Your task to perform on an android device: turn vacation reply on in the gmail app Image 0: 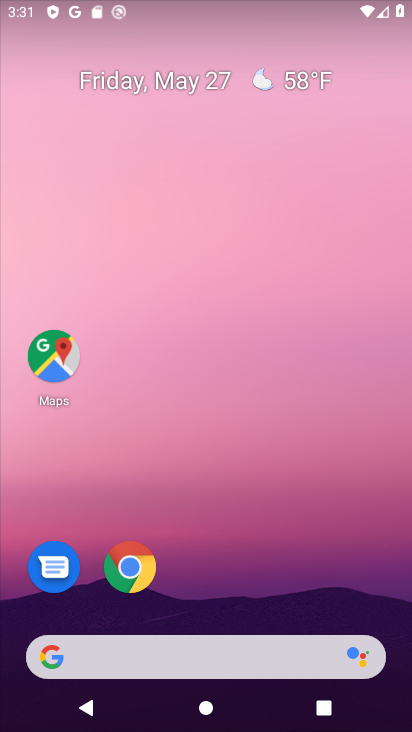
Step 0: press home button
Your task to perform on an android device: turn vacation reply on in the gmail app Image 1: 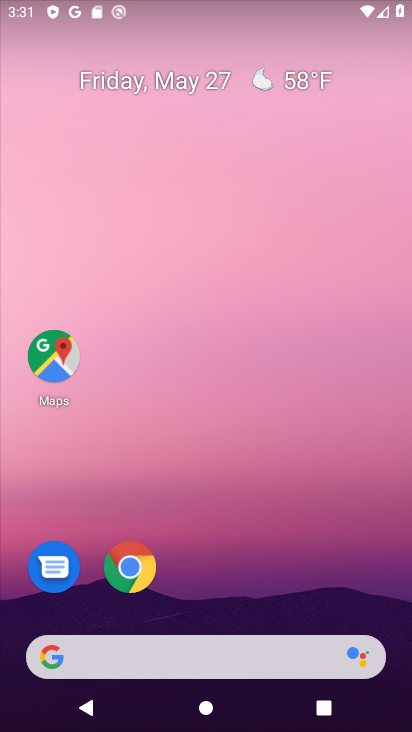
Step 1: drag from (226, 593) to (253, 84)
Your task to perform on an android device: turn vacation reply on in the gmail app Image 2: 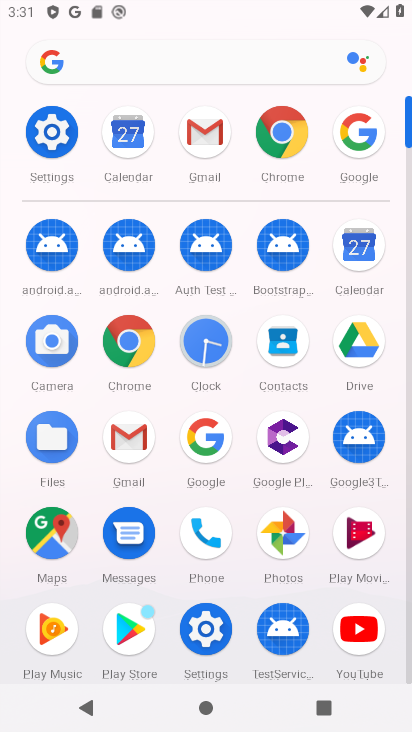
Step 2: click (203, 124)
Your task to perform on an android device: turn vacation reply on in the gmail app Image 3: 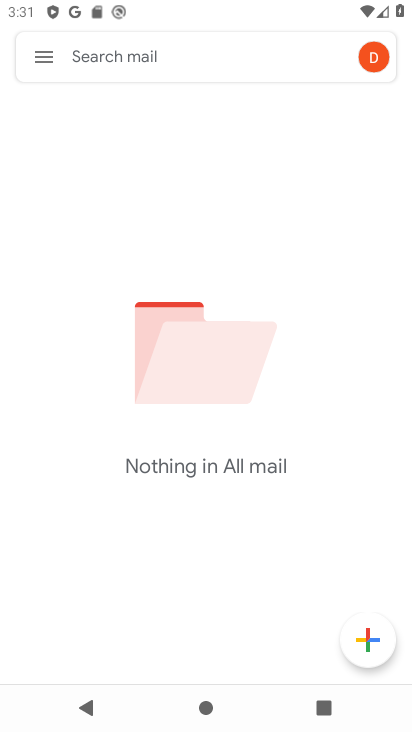
Step 3: click (45, 55)
Your task to perform on an android device: turn vacation reply on in the gmail app Image 4: 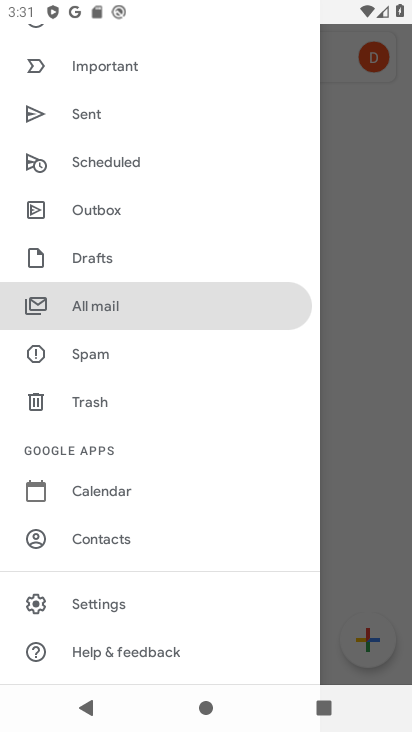
Step 4: click (139, 595)
Your task to perform on an android device: turn vacation reply on in the gmail app Image 5: 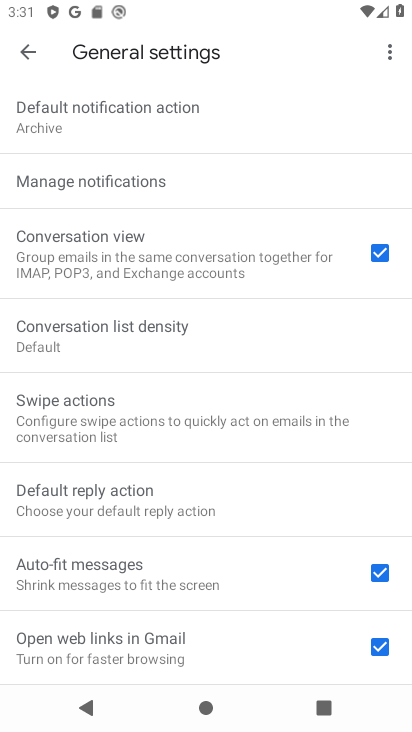
Step 5: drag from (235, 657) to (245, 222)
Your task to perform on an android device: turn vacation reply on in the gmail app Image 6: 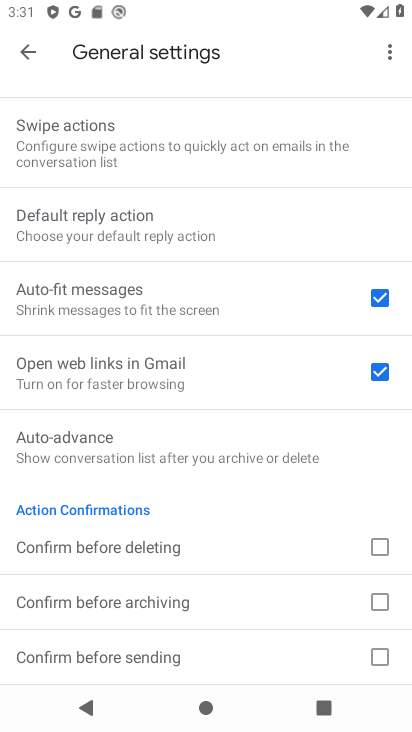
Step 6: click (27, 48)
Your task to perform on an android device: turn vacation reply on in the gmail app Image 7: 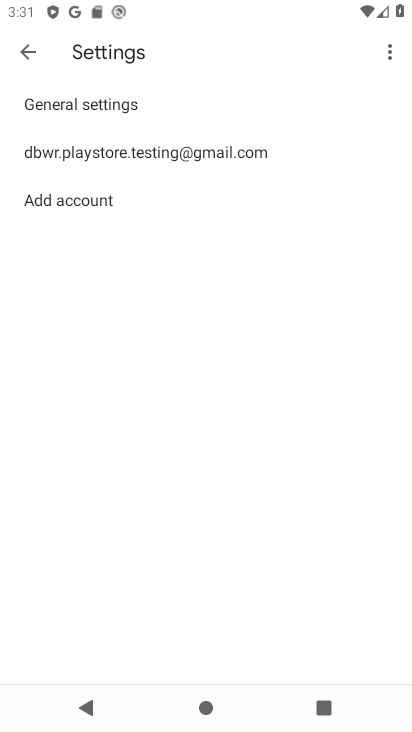
Step 7: click (279, 147)
Your task to perform on an android device: turn vacation reply on in the gmail app Image 8: 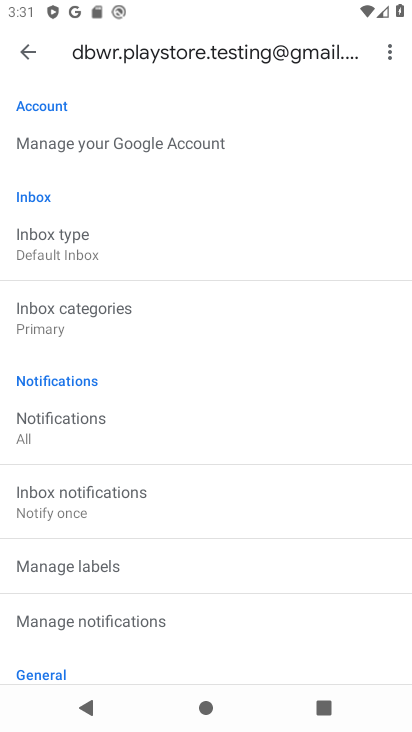
Step 8: drag from (197, 658) to (229, 74)
Your task to perform on an android device: turn vacation reply on in the gmail app Image 9: 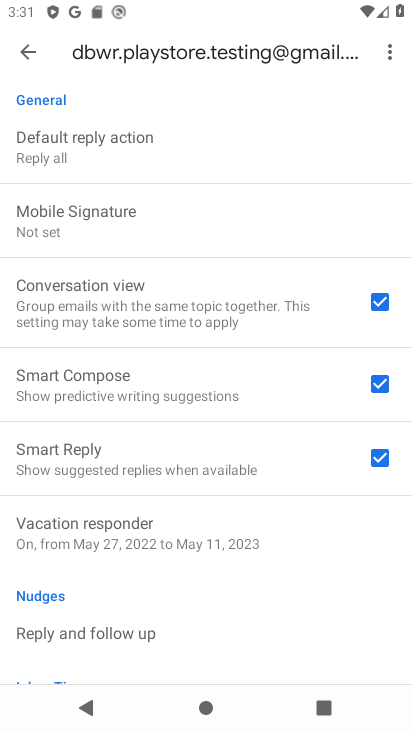
Step 9: click (168, 521)
Your task to perform on an android device: turn vacation reply on in the gmail app Image 10: 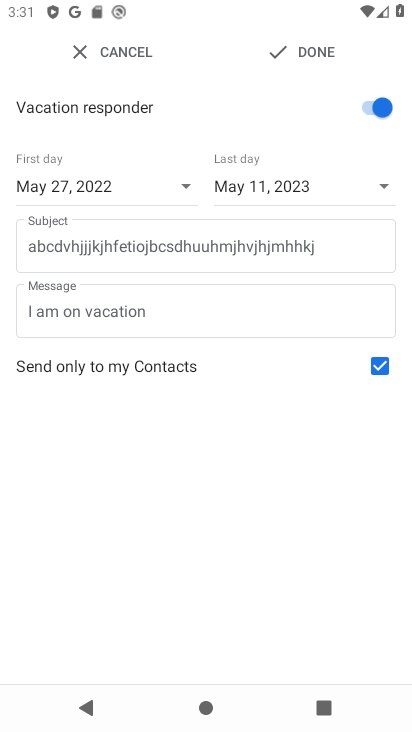
Step 10: task complete